Your task to perform on an android device: toggle priority inbox in the gmail app Image 0: 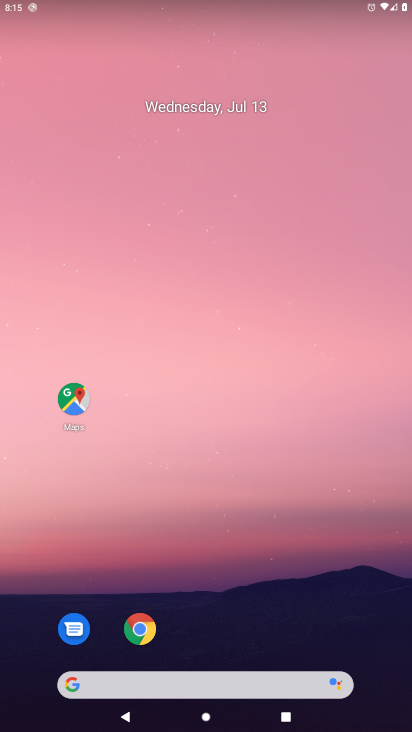
Step 0: drag from (157, 448) to (290, 136)
Your task to perform on an android device: toggle priority inbox in the gmail app Image 1: 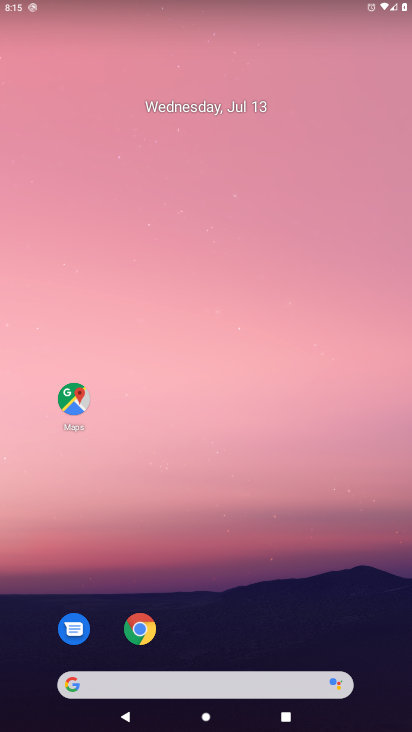
Step 1: drag from (8, 707) to (388, 21)
Your task to perform on an android device: toggle priority inbox in the gmail app Image 2: 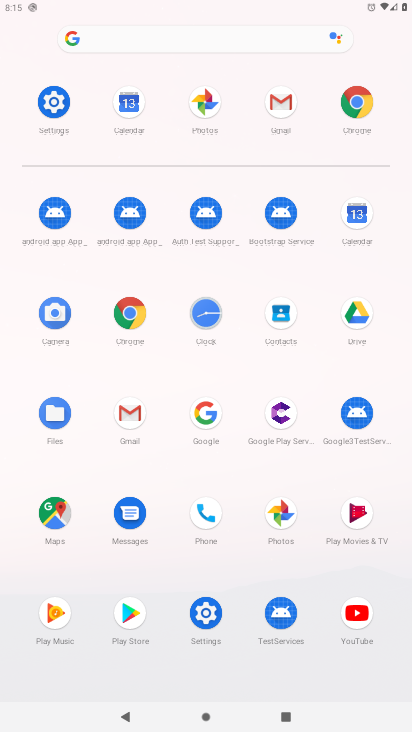
Step 2: click (125, 427)
Your task to perform on an android device: toggle priority inbox in the gmail app Image 3: 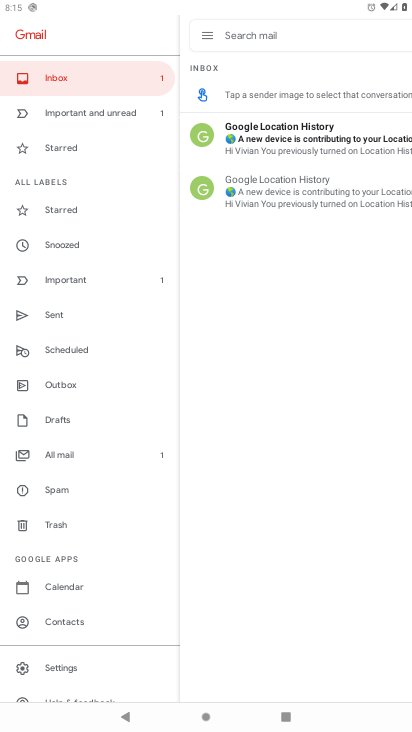
Step 3: click (75, 661)
Your task to perform on an android device: toggle priority inbox in the gmail app Image 4: 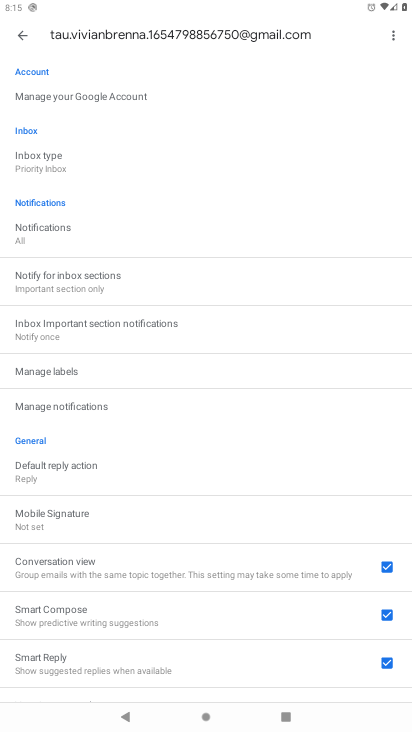
Step 4: click (87, 158)
Your task to perform on an android device: toggle priority inbox in the gmail app Image 5: 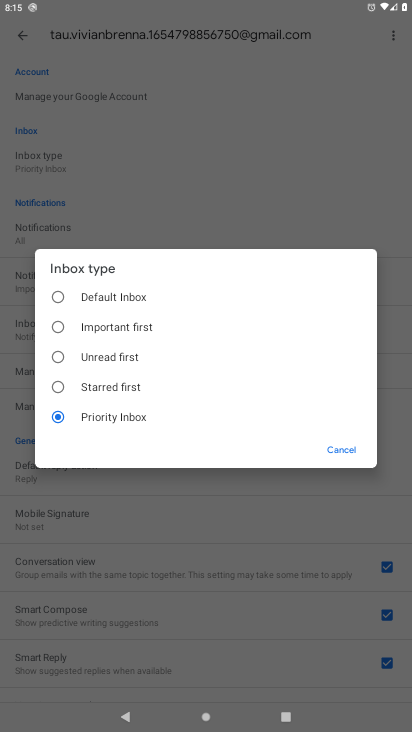
Step 5: task complete